Your task to perform on an android device: Open Google Chrome Image 0: 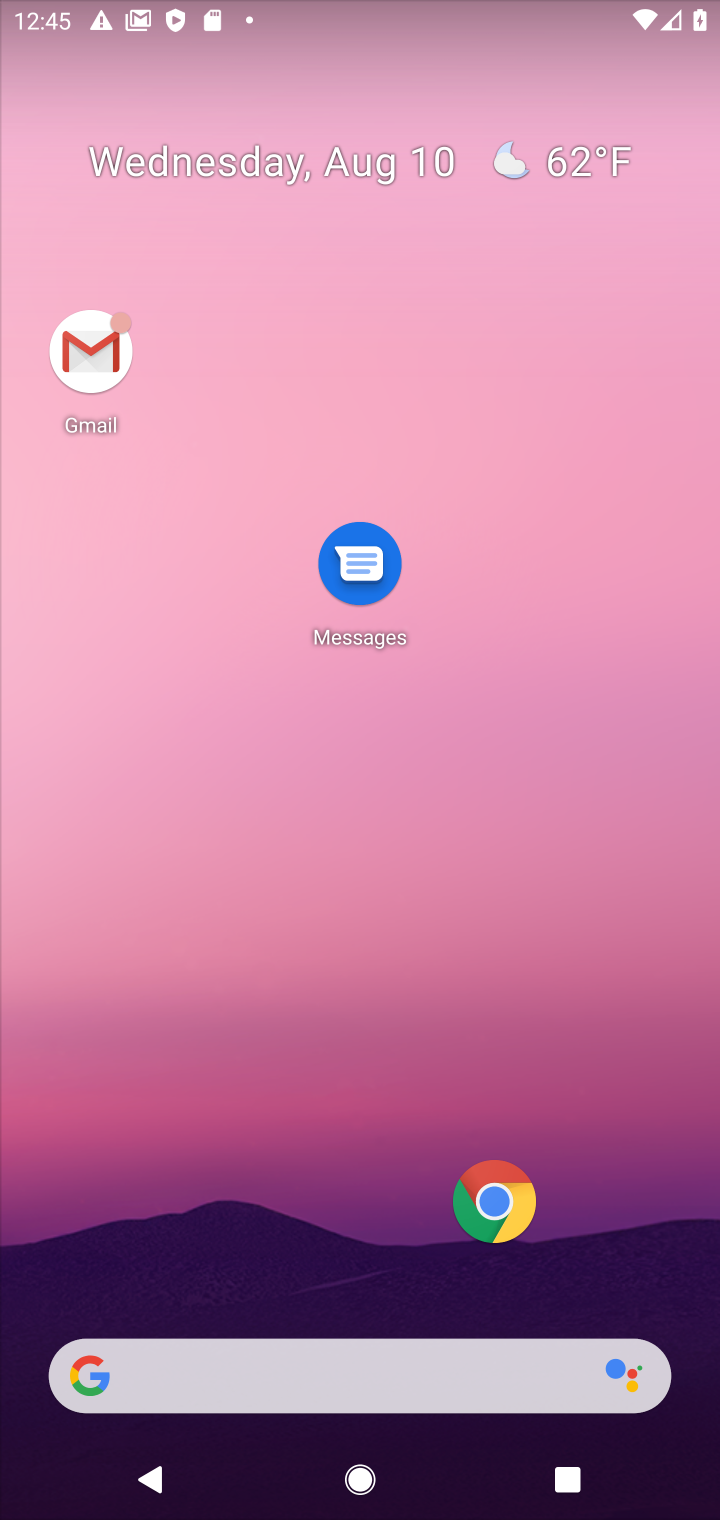
Step 0: click (475, 1208)
Your task to perform on an android device: Open Google Chrome Image 1: 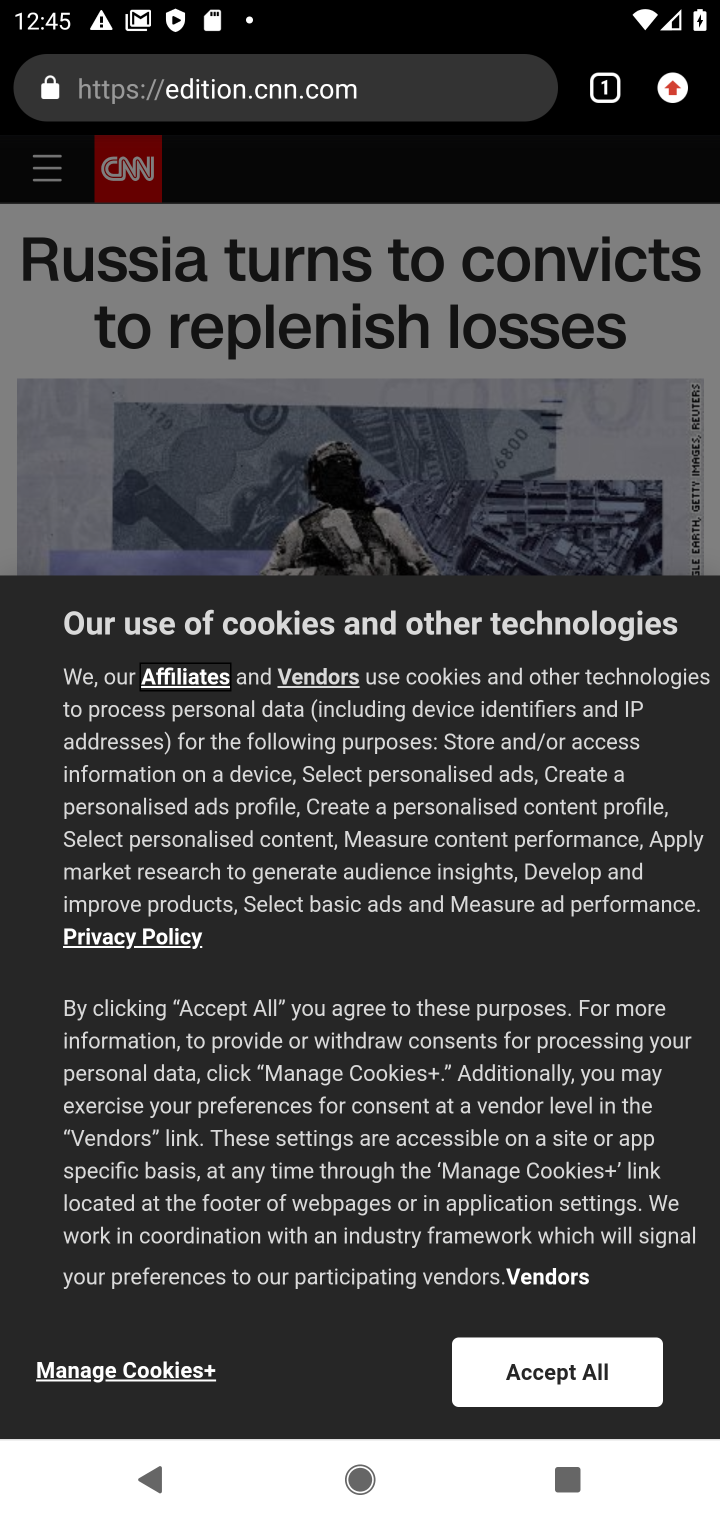
Step 1: task complete